Your task to perform on an android device: open the mobile data screen to see how much data has been used Image 0: 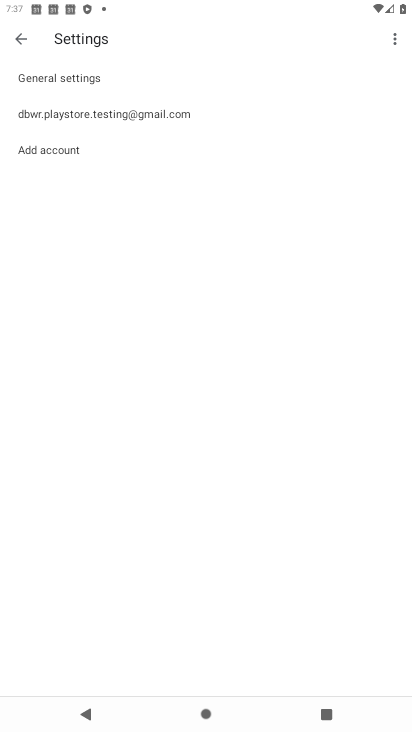
Step 0: click (137, 607)
Your task to perform on an android device: open the mobile data screen to see how much data has been used Image 1: 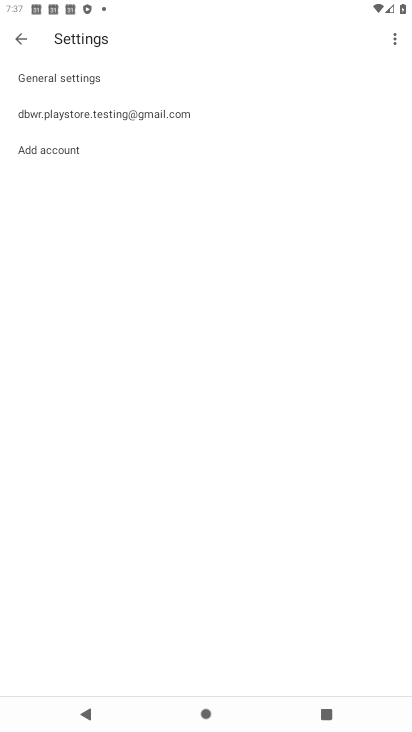
Step 1: click (20, 39)
Your task to perform on an android device: open the mobile data screen to see how much data has been used Image 2: 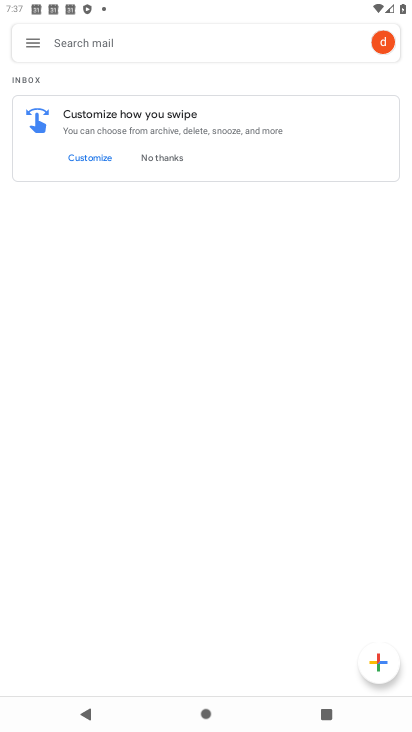
Step 2: press home button
Your task to perform on an android device: open the mobile data screen to see how much data has been used Image 3: 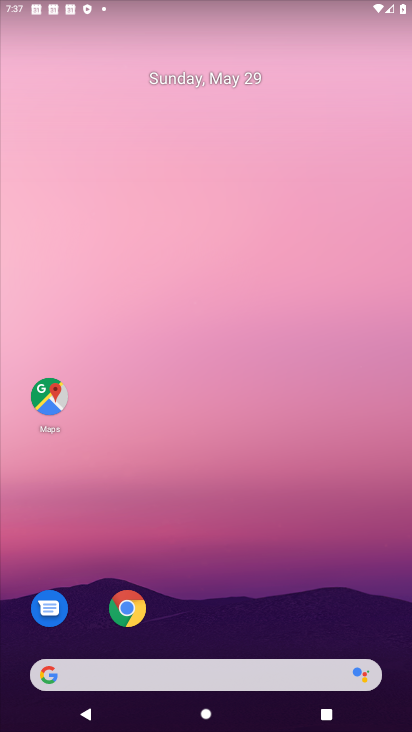
Step 3: drag from (242, 510) to (227, 70)
Your task to perform on an android device: open the mobile data screen to see how much data has been used Image 4: 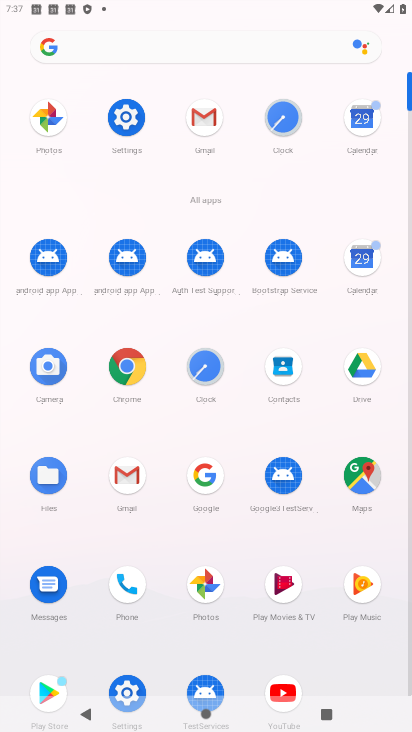
Step 4: click (130, 126)
Your task to perform on an android device: open the mobile data screen to see how much data has been used Image 5: 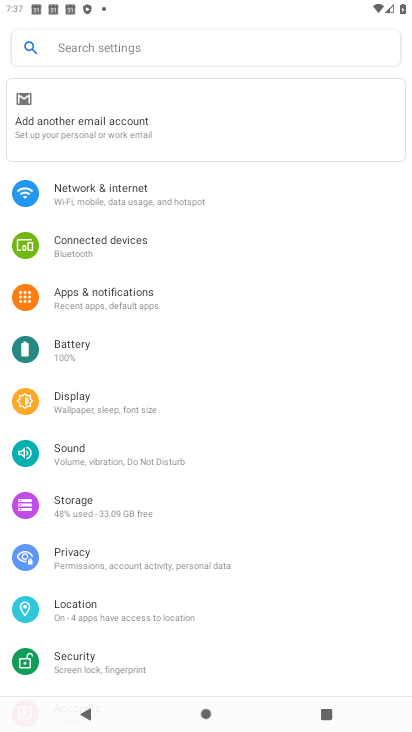
Step 5: click (113, 186)
Your task to perform on an android device: open the mobile data screen to see how much data has been used Image 6: 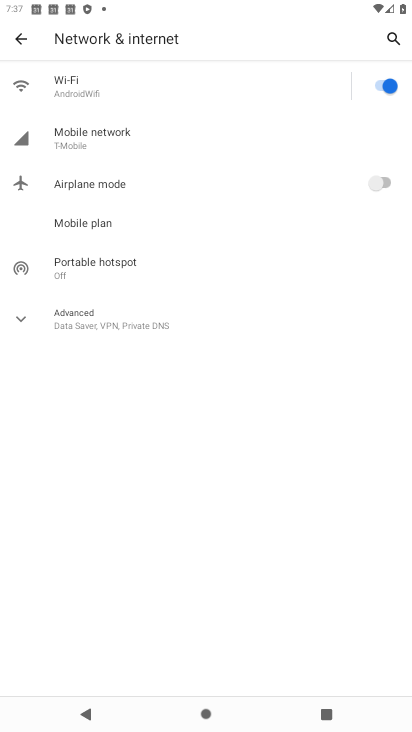
Step 6: click (86, 133)
Your task to perform on an android device: open the mobile data screen to see how much data has been used Image 7: 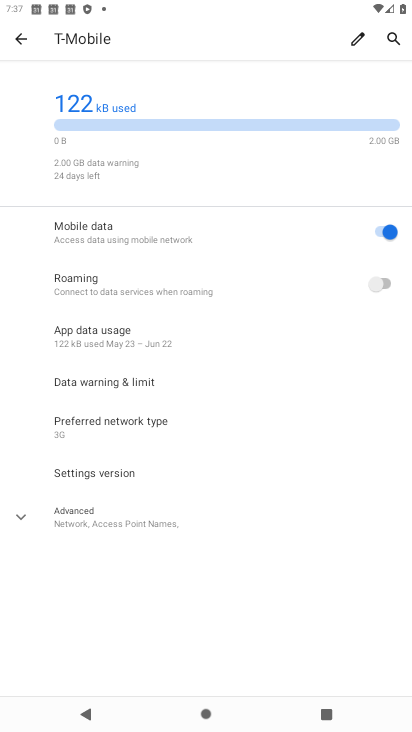
Step 7: task complete